Your task to perform on an android device: Clear the shopping cart on newegg.com. Search for macbook on newegg.com, select the first entry, add it to the cart, then select checkout. Image 0: 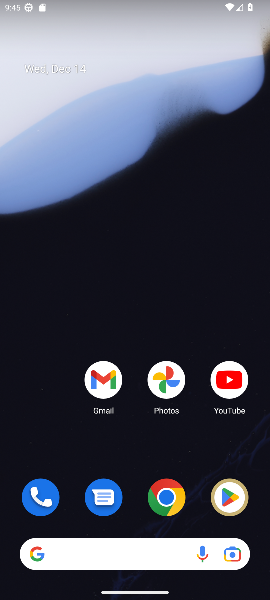
Step 0: click (166, 501)
Your task to perform on an android device: Clear the shopping cart on newegg.com. Search for macbook on newegg.com, select the first entry, add it to the cart, then select checkout. Image 1: 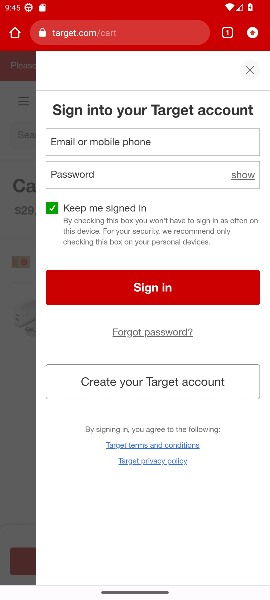
Step 1: click (112, 37)
Your task to perform on an android device: Clear the shopping cart on newegg.com. Search for macbook on newegg.com, select the first entry, add it to the cart, then select checkout. Image 2: 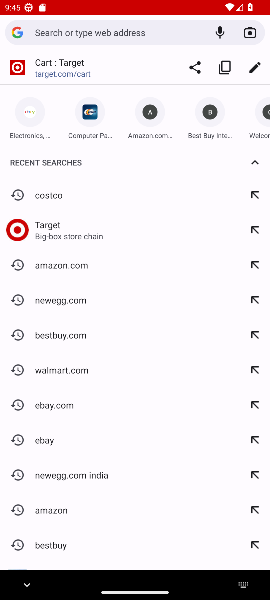
Step 2: type "newegg.com"
Your task to perform on an android device: Clear the shopping cart on newegg.com. Search for macbook on newegg.com, select the first entry, add it to the cart, then select checkout. Image 3: 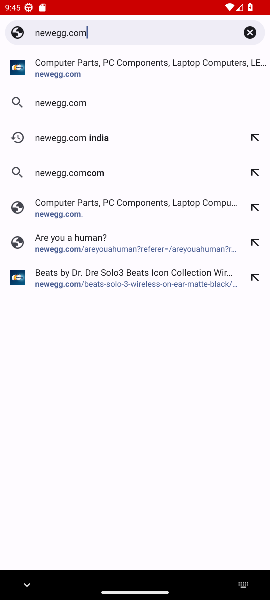
Step 3: click (93, 61)
Your task to perform on an android device: Clear the shopping cart on newegg.com. Search for macbook on newegg.com, select the first entry, add it to the cart, then select checkout. Image 4: 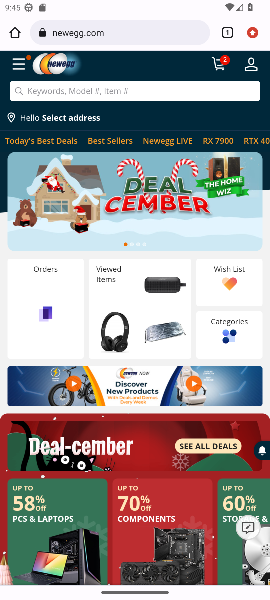
Step 4: click (219, 69)
Your task to perform on an android device: Clear the shopping cart on newegg.com. Search for macbook on newegg.com, select the first entry, add it to the cart, then select checkout. Image 5: 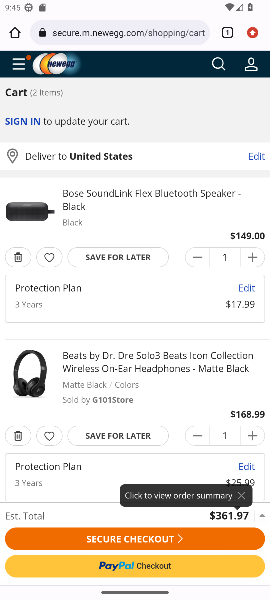
Step 5: click (21, 257)
Your task to perform on an android device: Clear the shopping cart on newegg.com. Search for macbook on newegg.com, select the first entry, add it to the cart, then select checkout. Image 6: 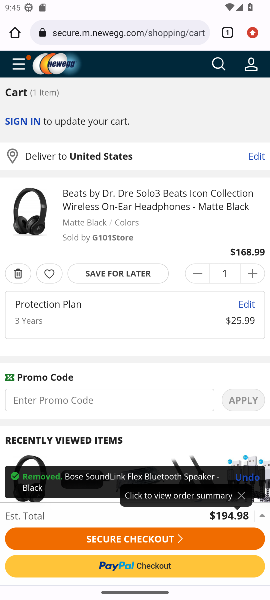
Step 6: click (17, 276)
Your task to perform on an android device: Clear the shopping cart on newegg.com. Search for macbook on newegg.com, select the first entry, add it to the cart, then select checkout. Image 7: 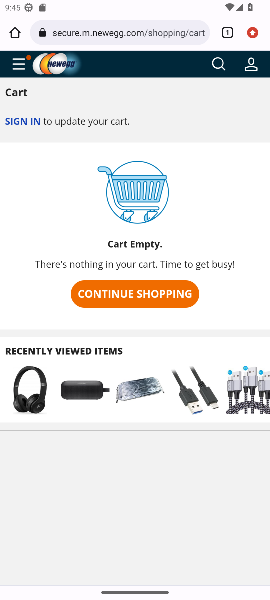
Step 7: click (221, 64)
Your task to perform on an android device: Clear the shopping cart on newegg.com. Search for macbook on newegg.com, select the first entry, add it to the cart, then select checkout. Image 8: 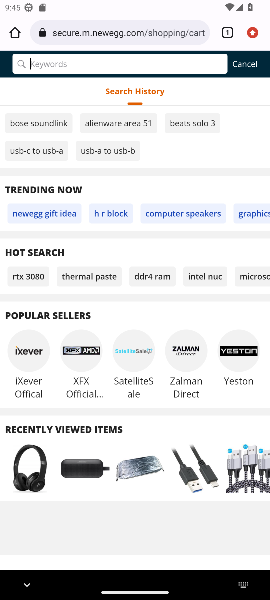
Step 8: type "macbook"
Your task to perform on an android device: Clear the shopping cart on newegg.com. Search for macbook on newegg.com, select the first entry, add it to the cart, then select checkout. Image 9: 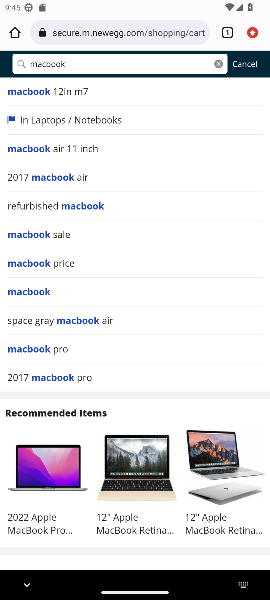
Step 9: press enter
Your task to perform on an android device: Clear the shopping cart on newegg.com. Search for macbook on newegg.com, select the first entry, add it to the cart, then select checkout. Image 10: 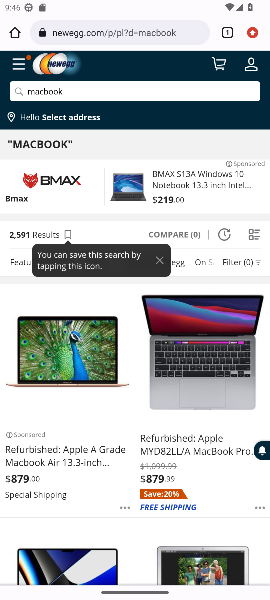
Step 10: click (81, 366)
Your task to perform on an android device: Clear the shopping cart on newegg.com. Search for macbook on newegg.com, select the first entry, add it to the cart, then select checkout. Image 11: 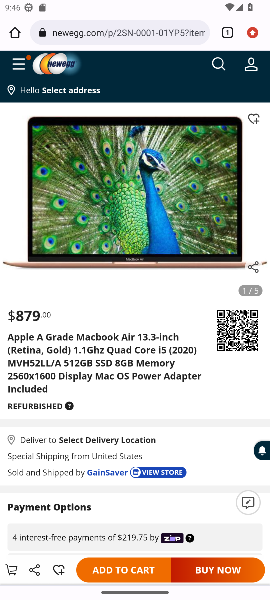
Step 11: click (119, 569)
Your task to perform on an android device: Clear the shopping cart on newegg.com. Search for macbook on newegg.com, select the first entry, add it to the cart, then select checkout. Image 12: 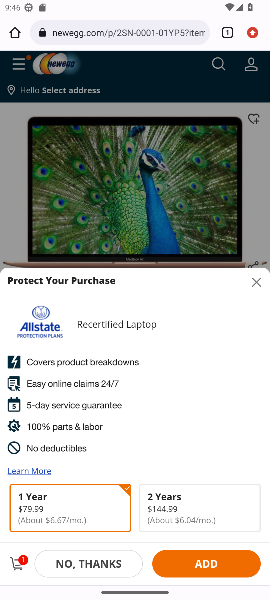
Step 12: click (190, 559)
Your task to perform on an android device: Clear the shopping cart on newegg.com. Search for macbook on newegg.com, select the first entry, add it to the cart, then select checkout. Image 13: 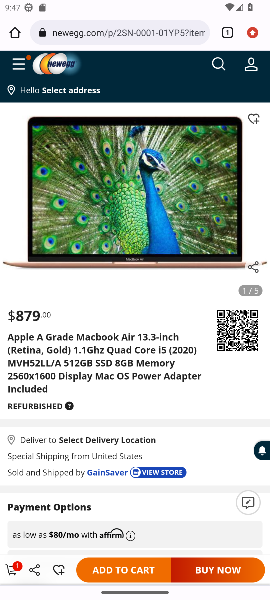
Step 13: click (18, 569)
Your task to perform on an android device: Clear the shopping cart on newegg.com. Search for macbook on newegg.com, select the first entry, add it to the cart, then select checkout. Image 14: 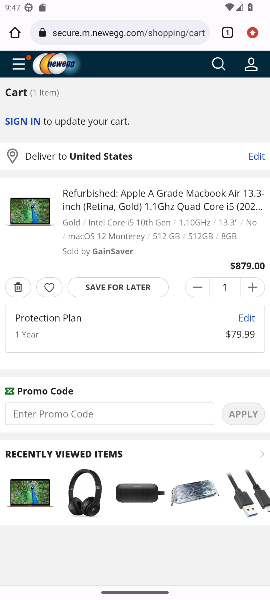
Step 14: click (124, 479)
Your task to perform on an android device: Clear the shopping cart on newegg.com. Search for macbook on newegg.com, select the first entry, add it to the cart, then select checkout. Image 15: 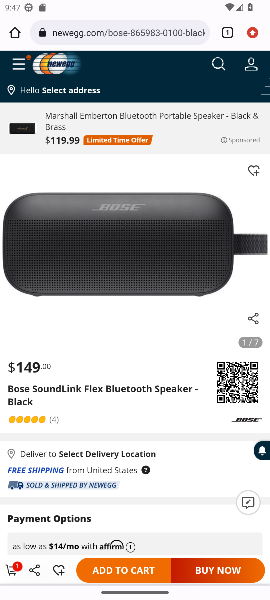
Step 15: click (6, 567)
Your task to perform on an android device: Clear the shopping cart on newegg.com. Search for macbook on newegg.com, select the first entry, add it to the cart, then select checkout. Image 16: 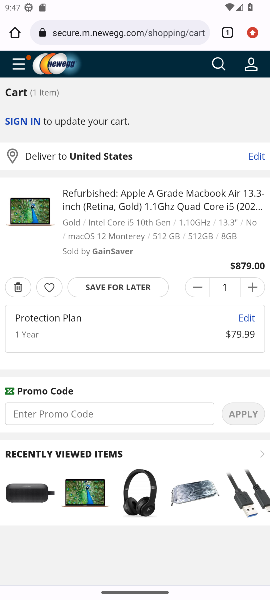
Step 16: drag from (200, 409) to (195, 221)
Your task to perform on an android device: Clear the shopping cart on newegg.com. Search for macbook on newegg.com, select the first entry, add it to the cart, then select checkout. Image 17: 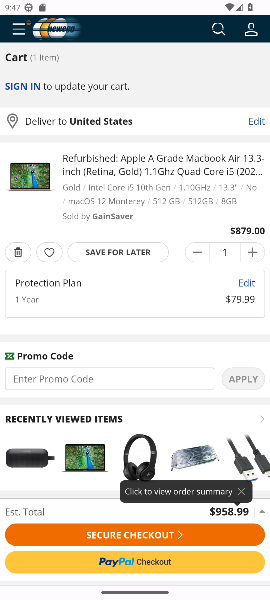
Step 17: click (105, 534)
Your task to perform on an android device: Clear the shopping cart on newegg.com. Search for macbook on newegg.com, select the first entry, add it to the cart, then select checkout. Image 18: 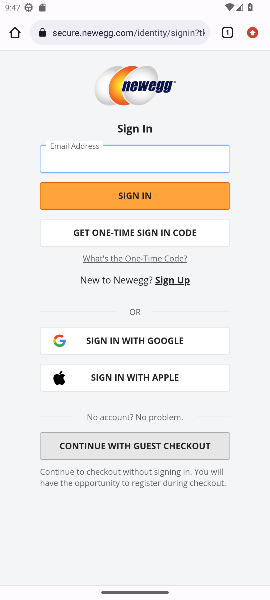
Step 18: task complete